Your task to perform on an android device: Go to privacy settings Image 0: 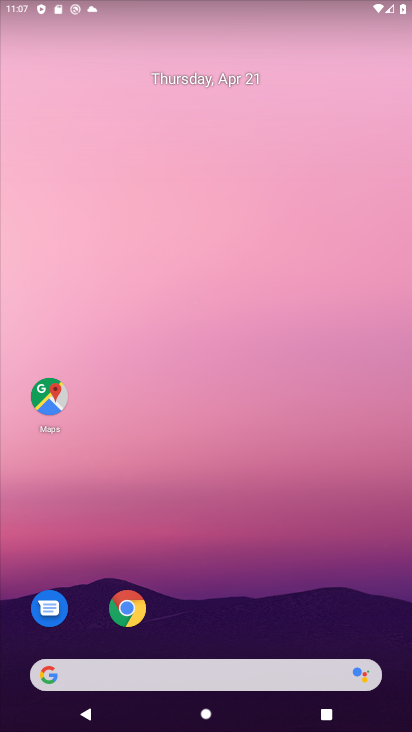
Step 0: click (135, 614)
Your task to perform on an android device: Go to privacy settings Image 1: 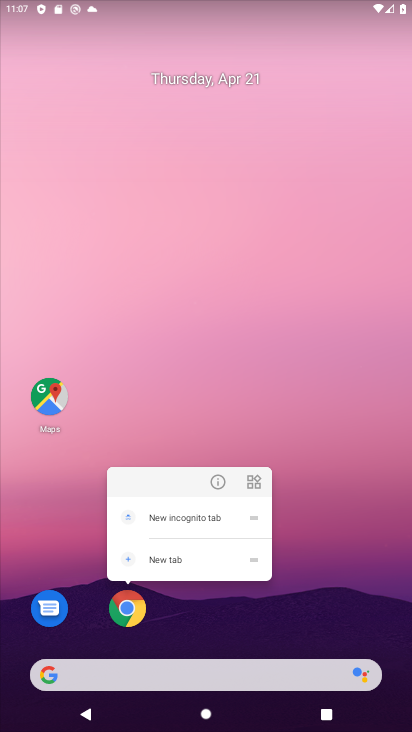
Step 1: click (135, 614)
Your task to perform on an android device: Go to privacy settings Image 2: 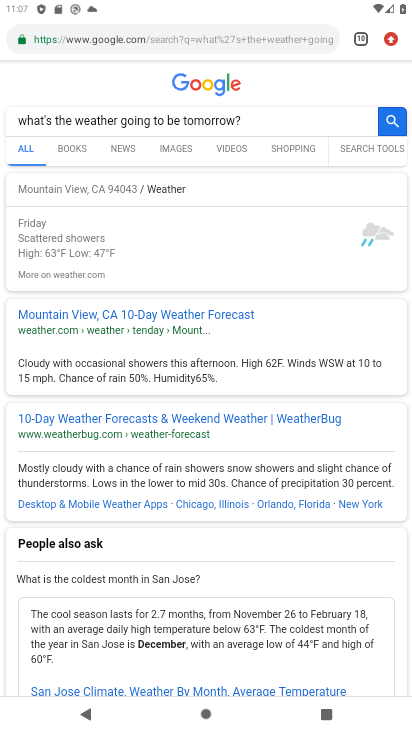
Step 2: click (393, 41)
Your task to perform on an android device: Go to privacy settings Image 3: 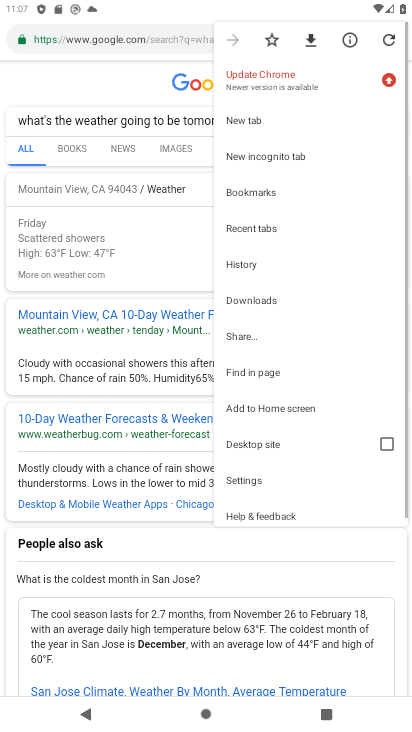
Step 3: drag from (393, 41) to (248, 480)
Your task to perform on an android device: Go to privacy settings Image 4: 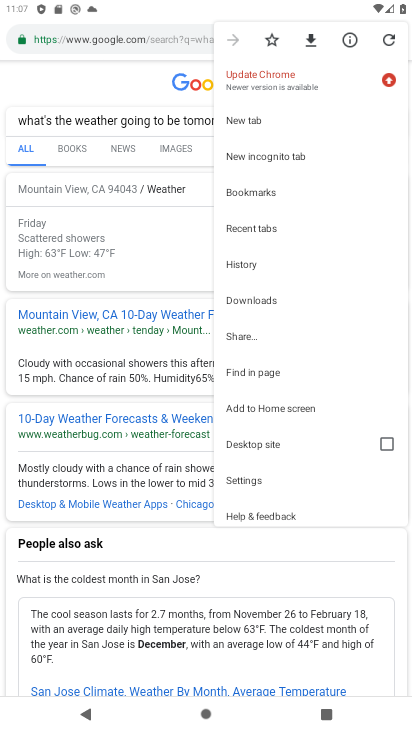
Step 4: click (252, 480)
Your task to perform on an android device: Go to privacy settings Image 5: 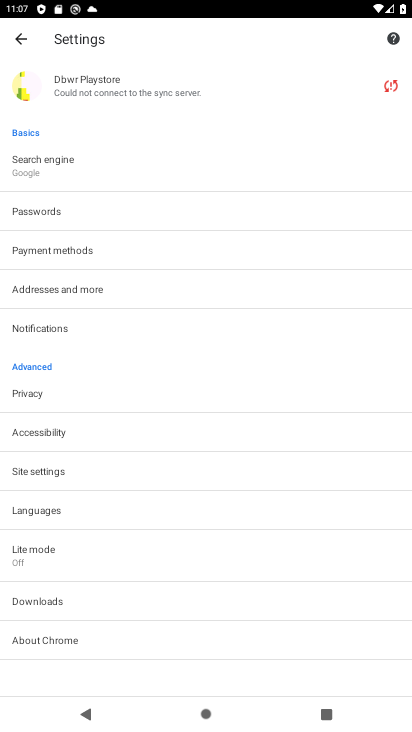
Step 5: click (18, 394)
Your task to perform on an android device: Go to privacy settings Image 6: 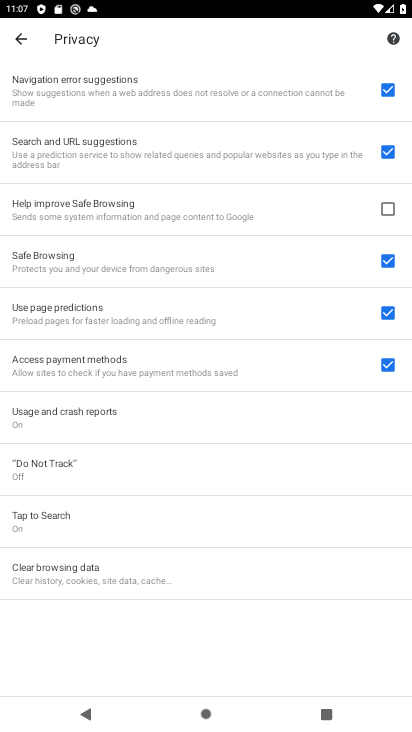
Step 6: task complete